Your task to perform on an android device: add a label to a message in the gmail app Image 0: 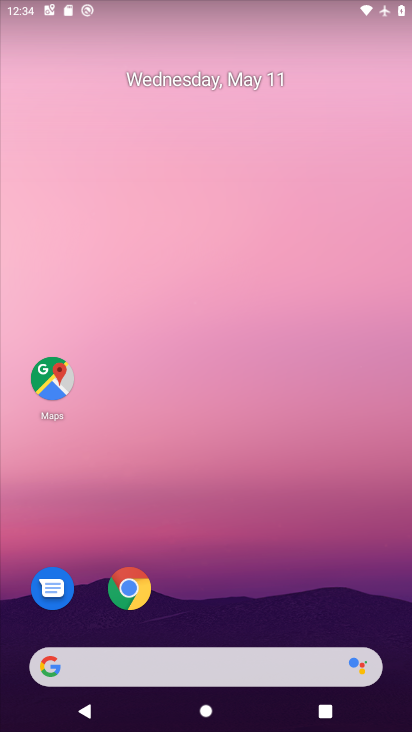
Step 0: press home button
Your task to perform on an android device: add a label to a message in the gmail app Image 1: 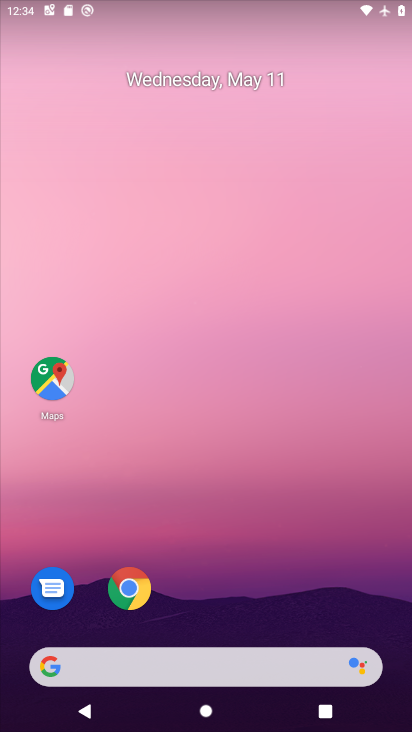
Step 1: drag from (182, 623) to (182, 292)
Your task to perform on an android device: add a label to a message in the gmail app Image 2: 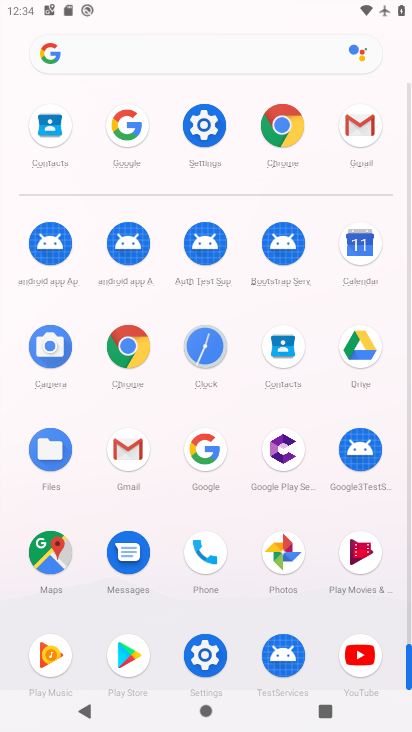
Step 2: click (124, 446)
Your task to perform on an android device: add a label to a message in the gmail app Image 3: 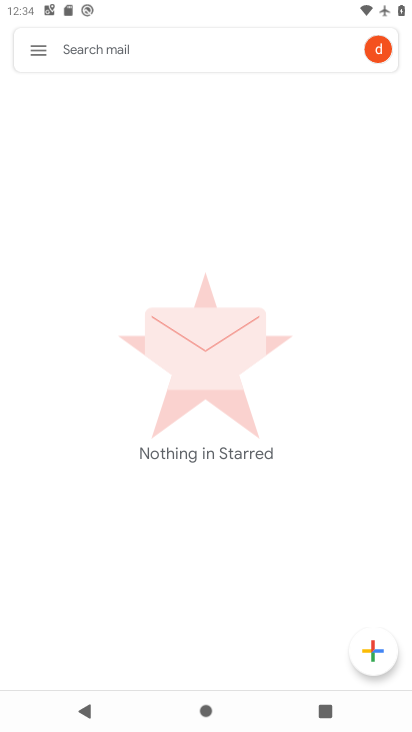
Step 3: click (45, 54)
Your task to perform on an android device: add a label to a message in the gmail app Image 4: 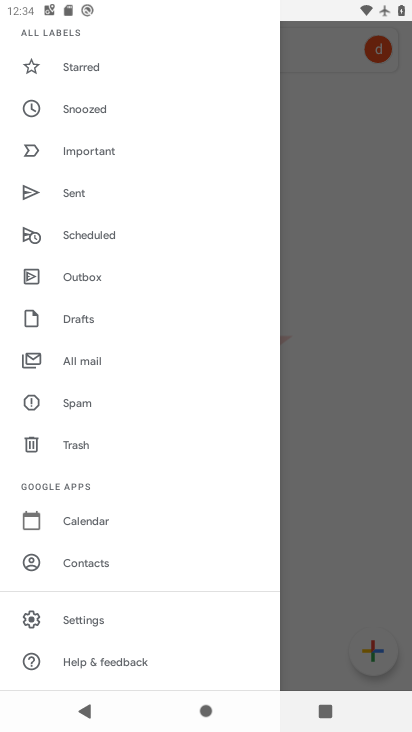
Step 4: drag from (84, 82) to (99, 444)
Your task to perform on an android device: add a label to a message in the gmail app Image 5: 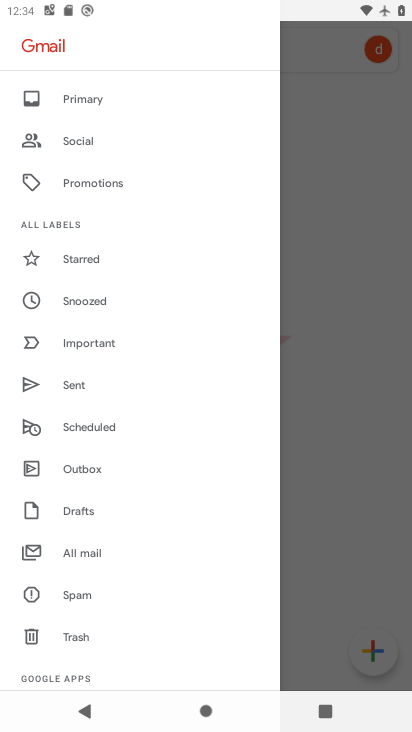
Step 5: click (86, 552)
Your task to perform on an android device: add a label to a message in the gmail app Image 6: 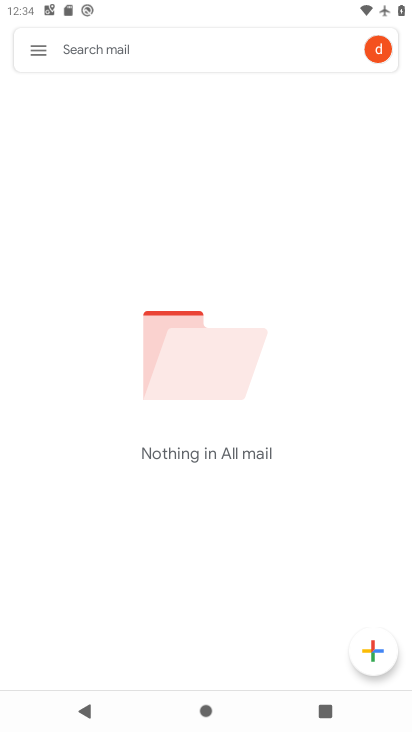
Step 6: task complete